Your task to perform on an android device: What's the weather going to be tomorrow? Image 0: 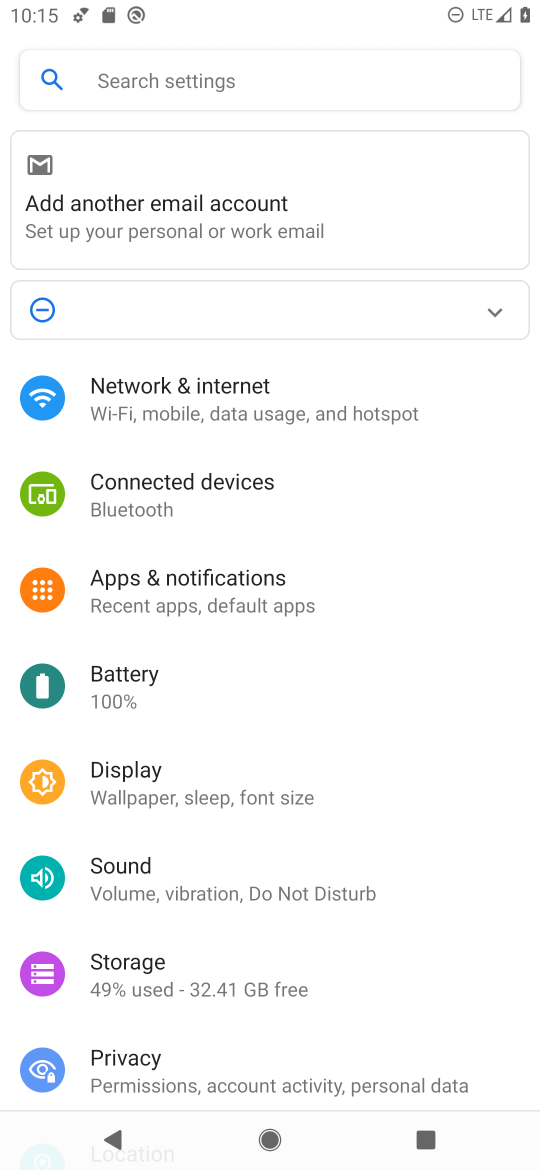
Step 0: press home button
Your task to perform on an android device: What's the weather going to be tomorrow? Image 1: 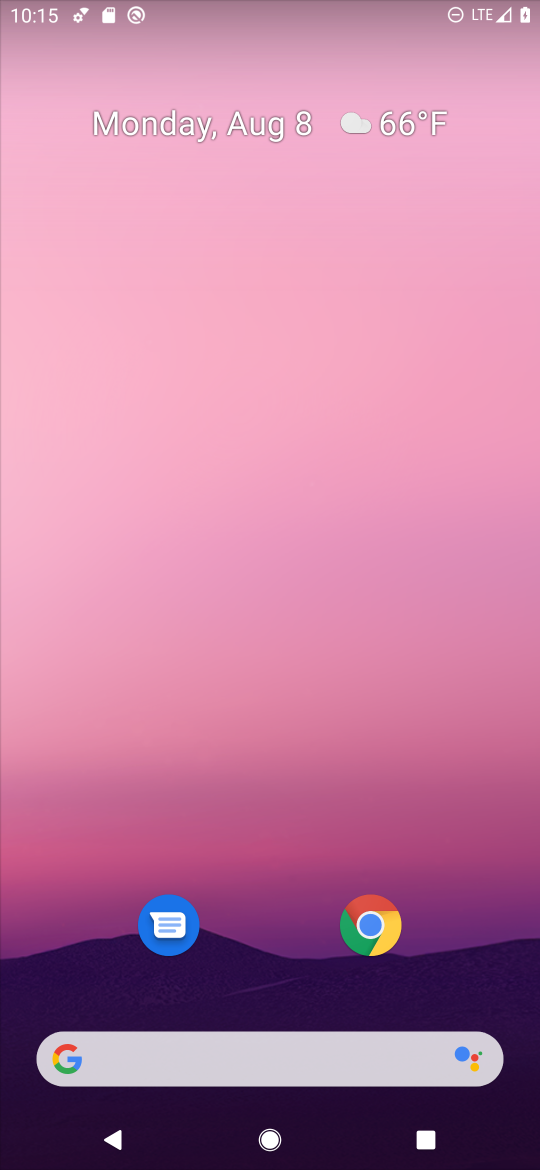
Step 1: drag from (249, 761) to (299, 157)
Your task to perform on an android device: What's the weather going to be tomorrow? Image 2: 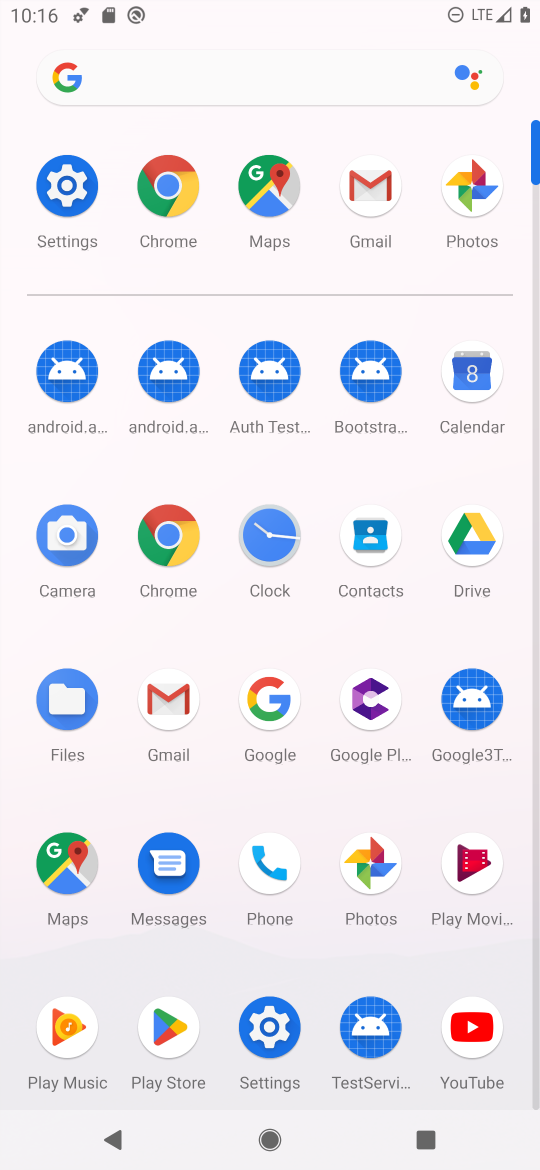
Step 2: click (175, 540)
Your task to perform on an android device: What's the weather going to be tomorrow? Image 3: 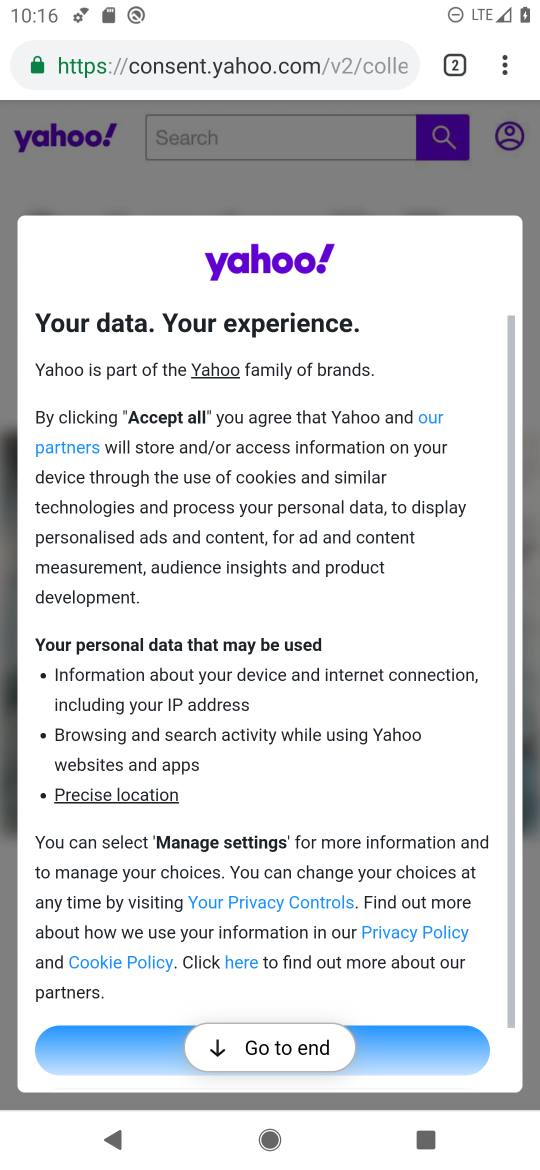
Step 3: click (197, 69)
Your task to perform on an android device: What's the weather going to be tomorrow? Image 4: 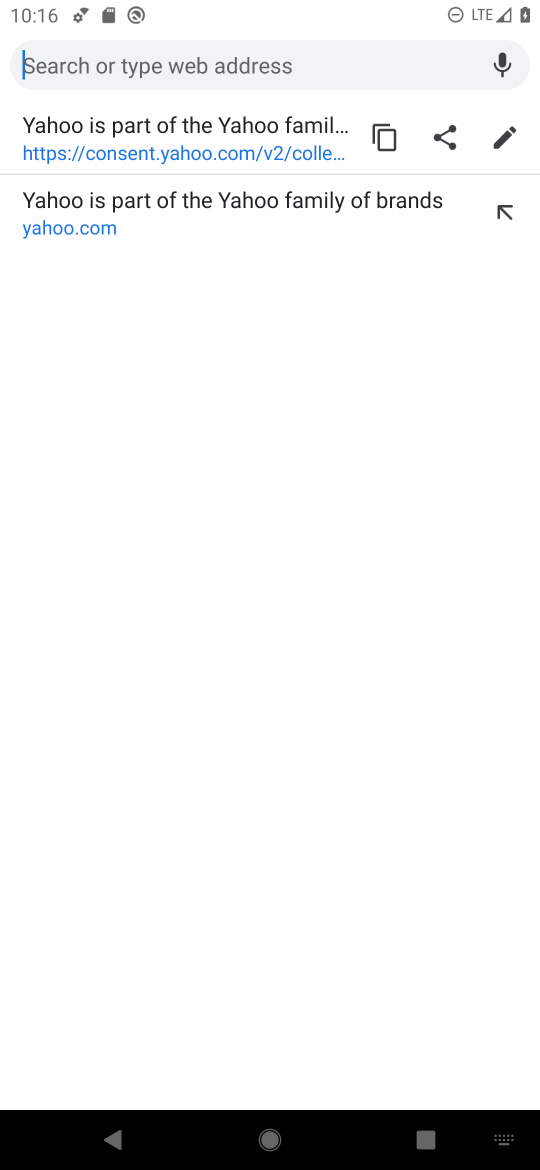
Step 4: type "weather"
Your task to perform on an android device: What's the weather going to be tomorrow? Image 5: 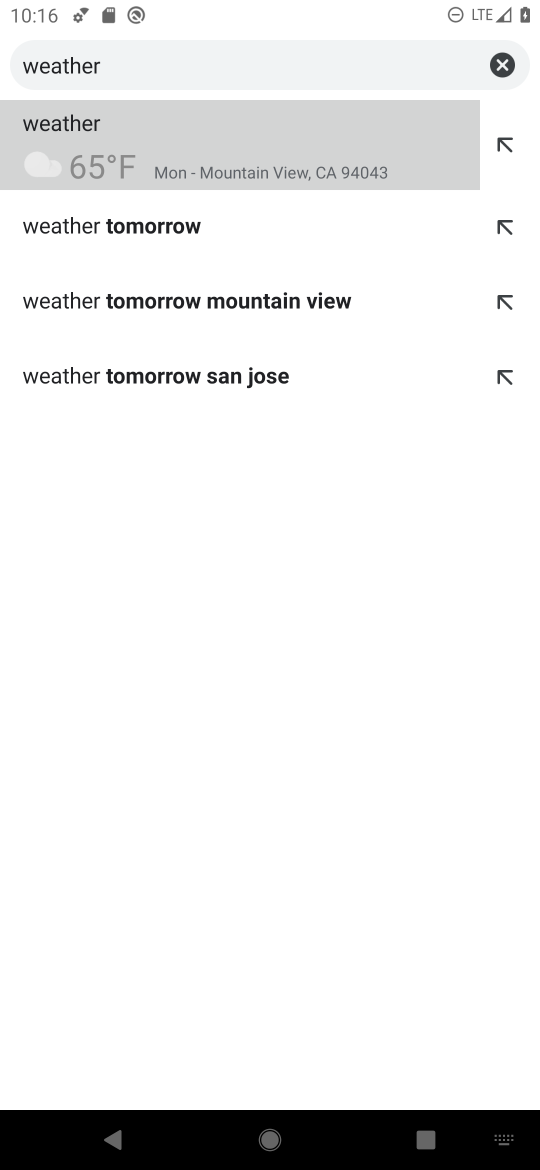
Step 5: click (154, 154)
Your task to perform on an android device: What's the weather going to be tomorrow? Image 6: 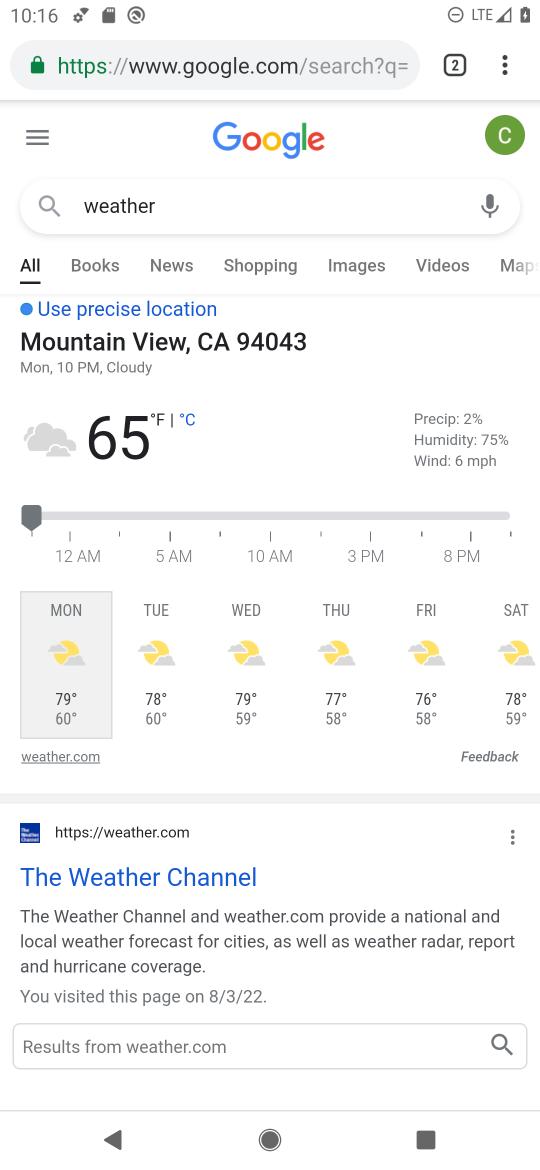
Step 6: click (150, 648)
Your task to perform on an android device: What's the weather going to be tomorrow? Image 7: 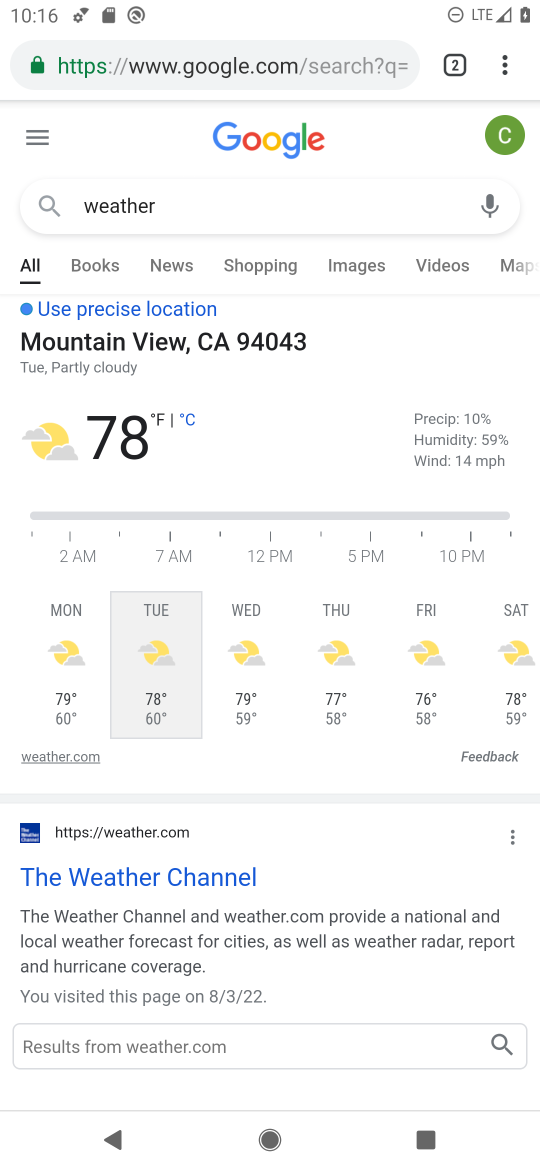
Step 7: task complete